Your task to perform on an android device: Go to internet settings Image 0: 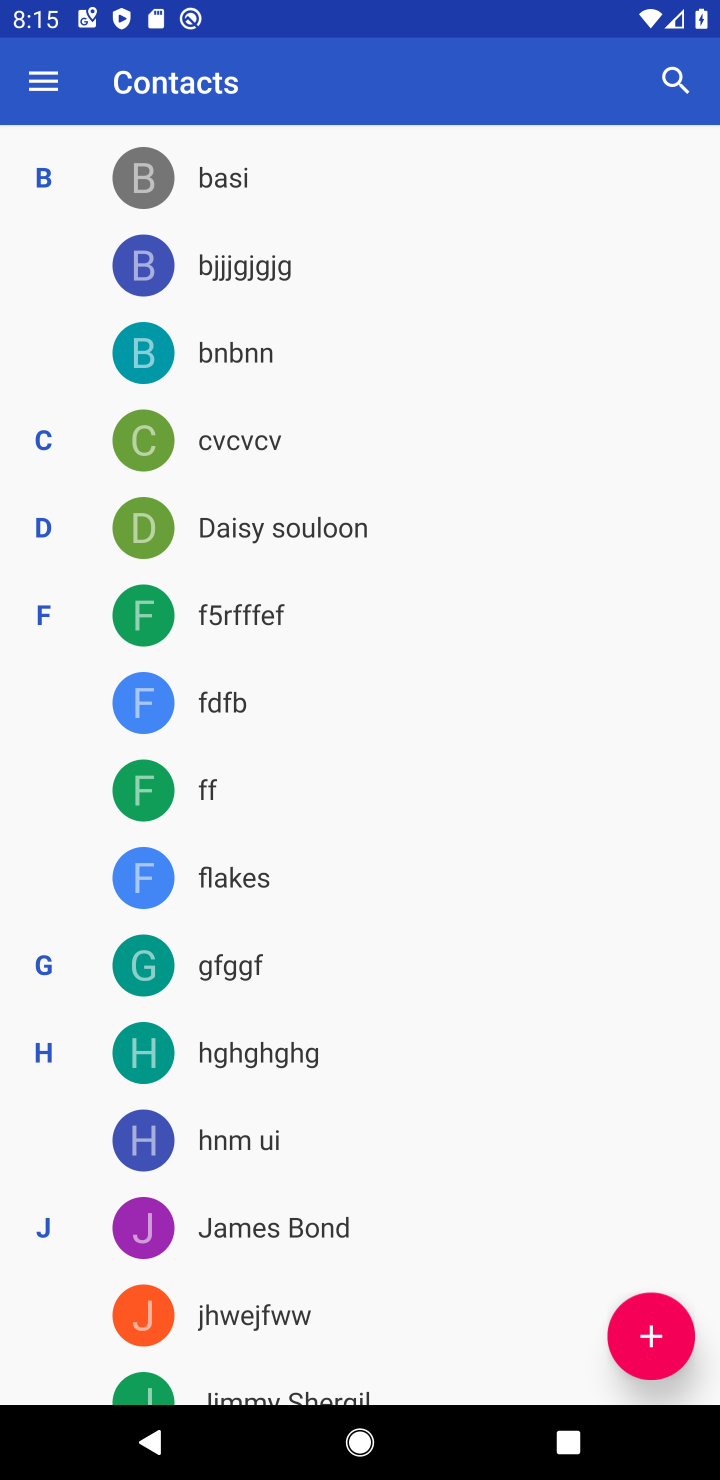
Step 0: press home button
Your task to perform on an android device: Go to internet settings Image 1: 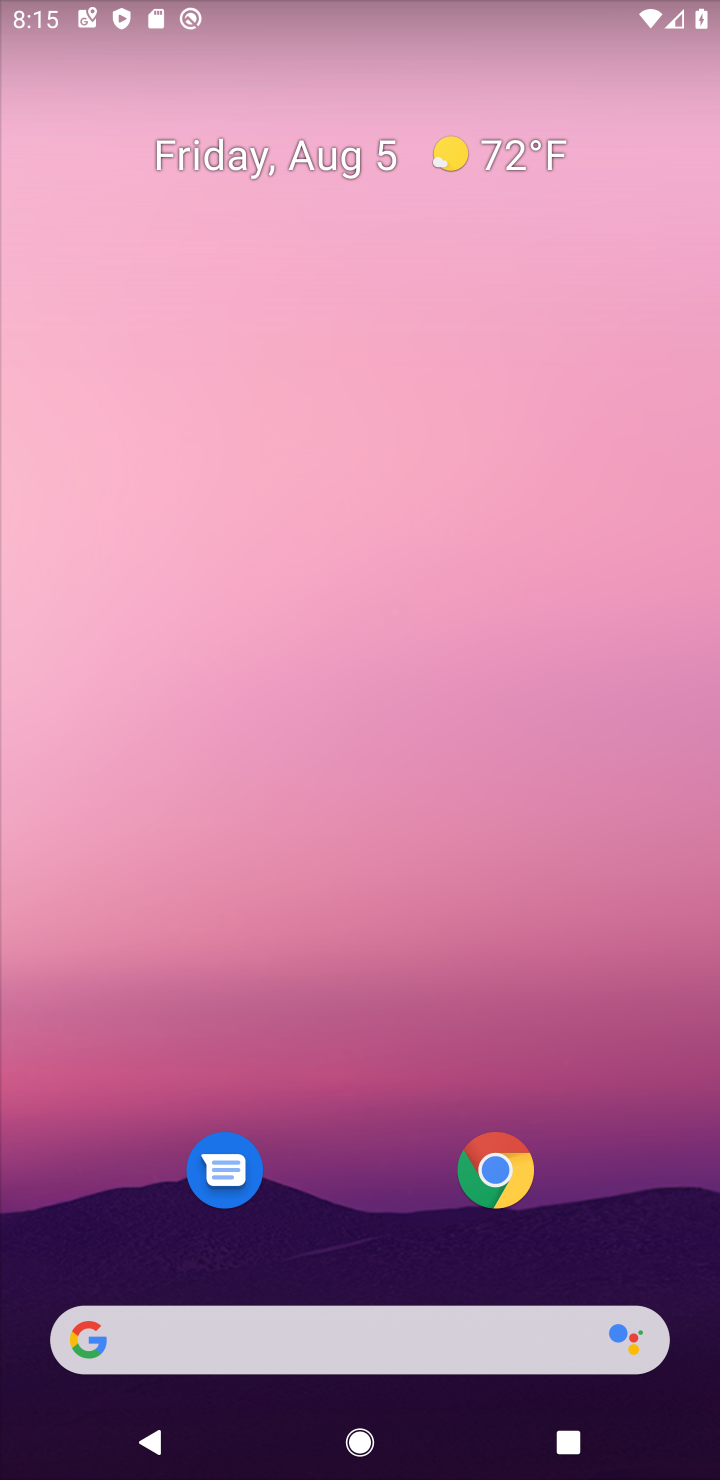
Step 1: drag from (674, 1231) to (645, 707)
Your task to perform on an android device: Go to internet settings Image 2: 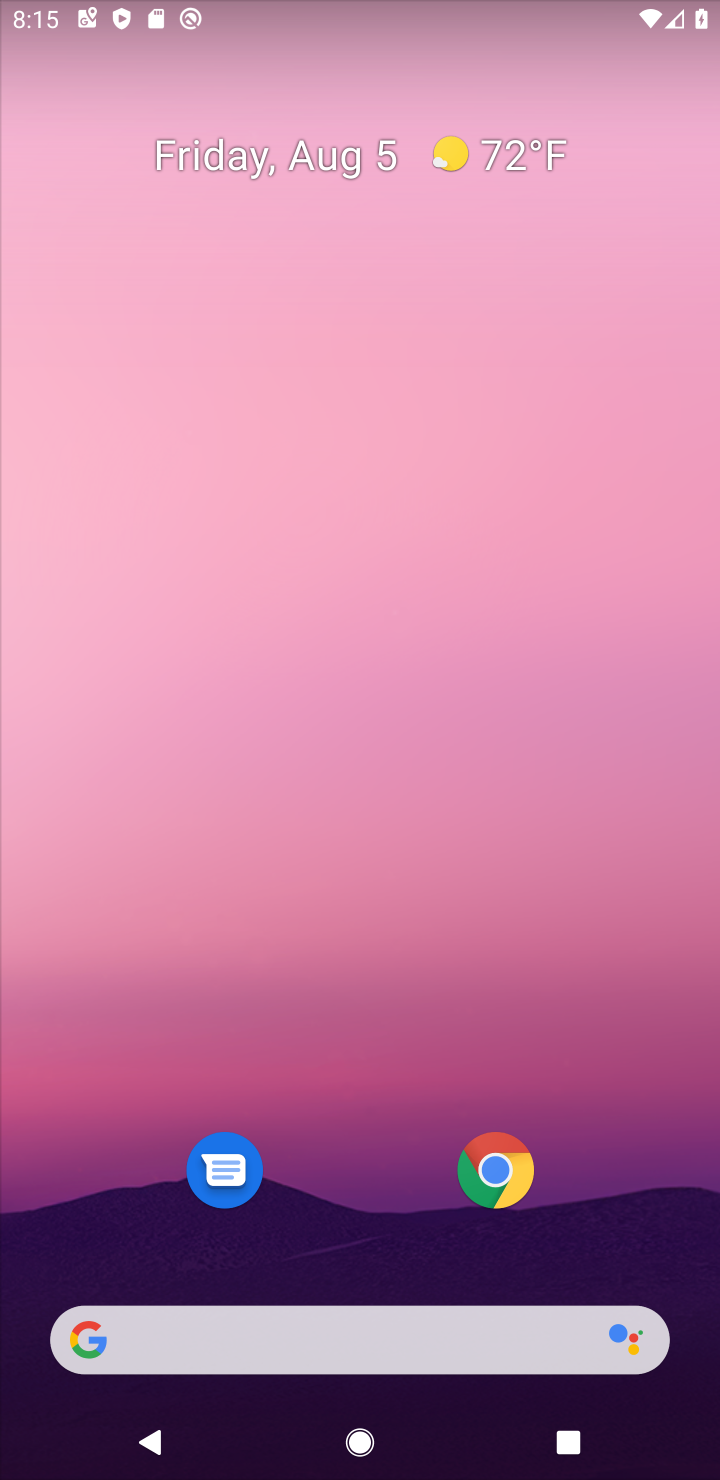
Step 2: drag from (668, 1254) to (605, 123)
Your task to perform on an android device: Go to internet settings Image 3: 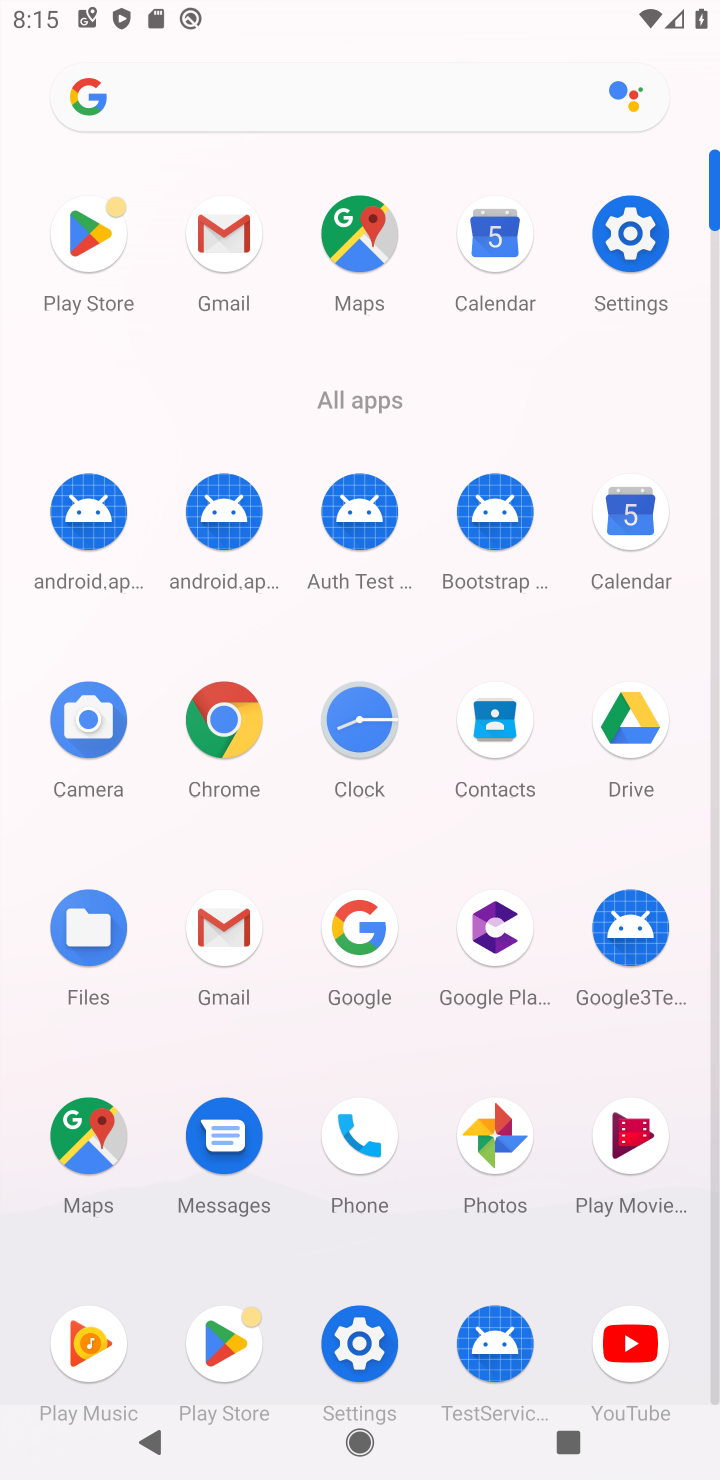
Step 3: click (352, 1339)
Your task to perform on an android device: Go to internet settings Image 4: 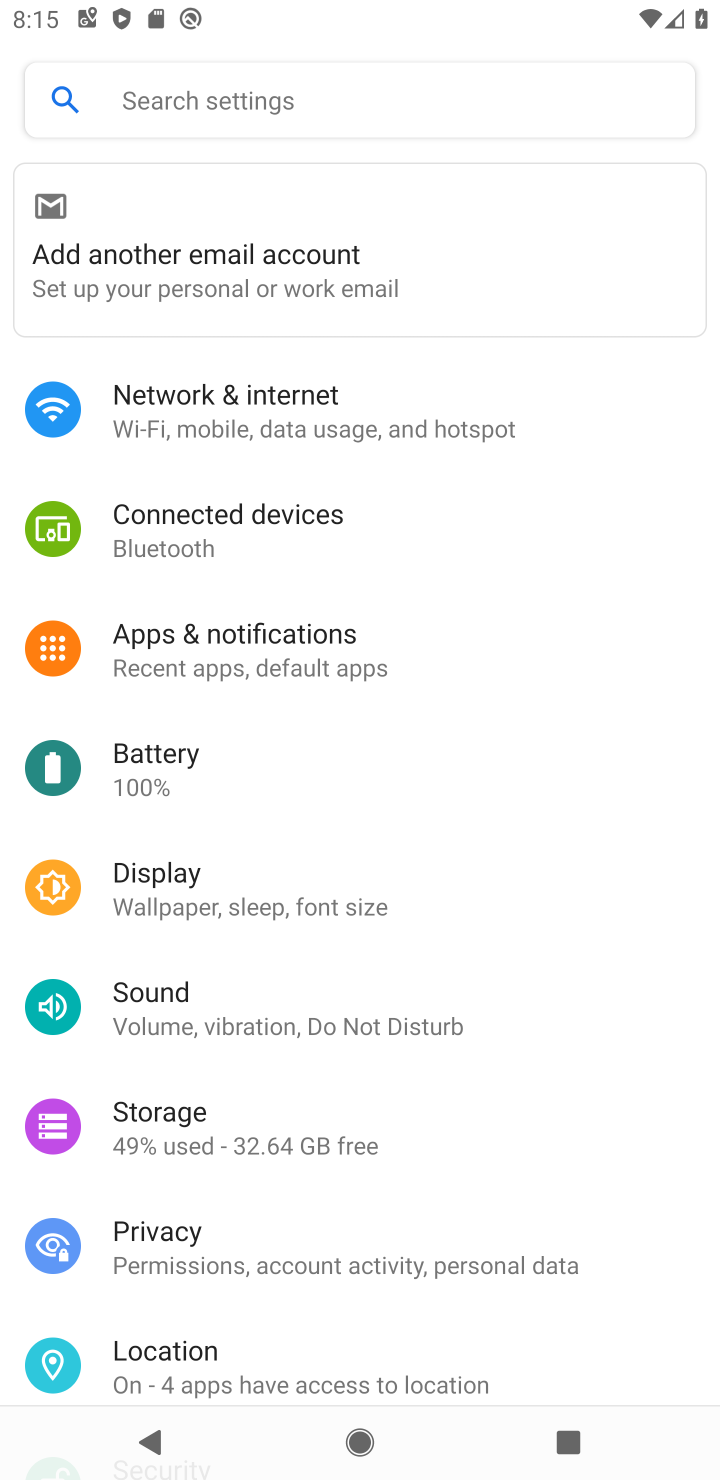
Step 4: click (188, 397)
Your task to perform on an android device: Go to internet settings Image 5: 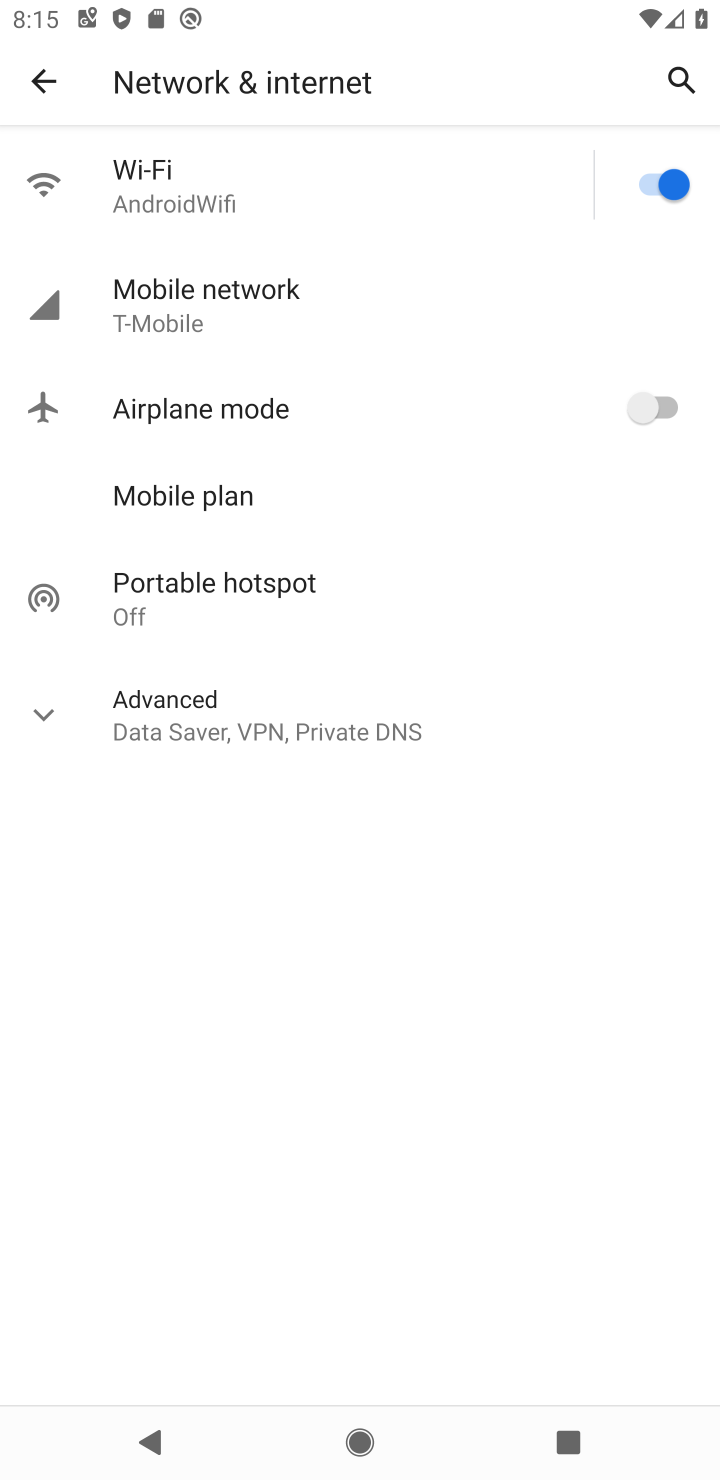
Step 5: click (129, 164)
Your task to perform on an android device: Go to internet settings Image 6: 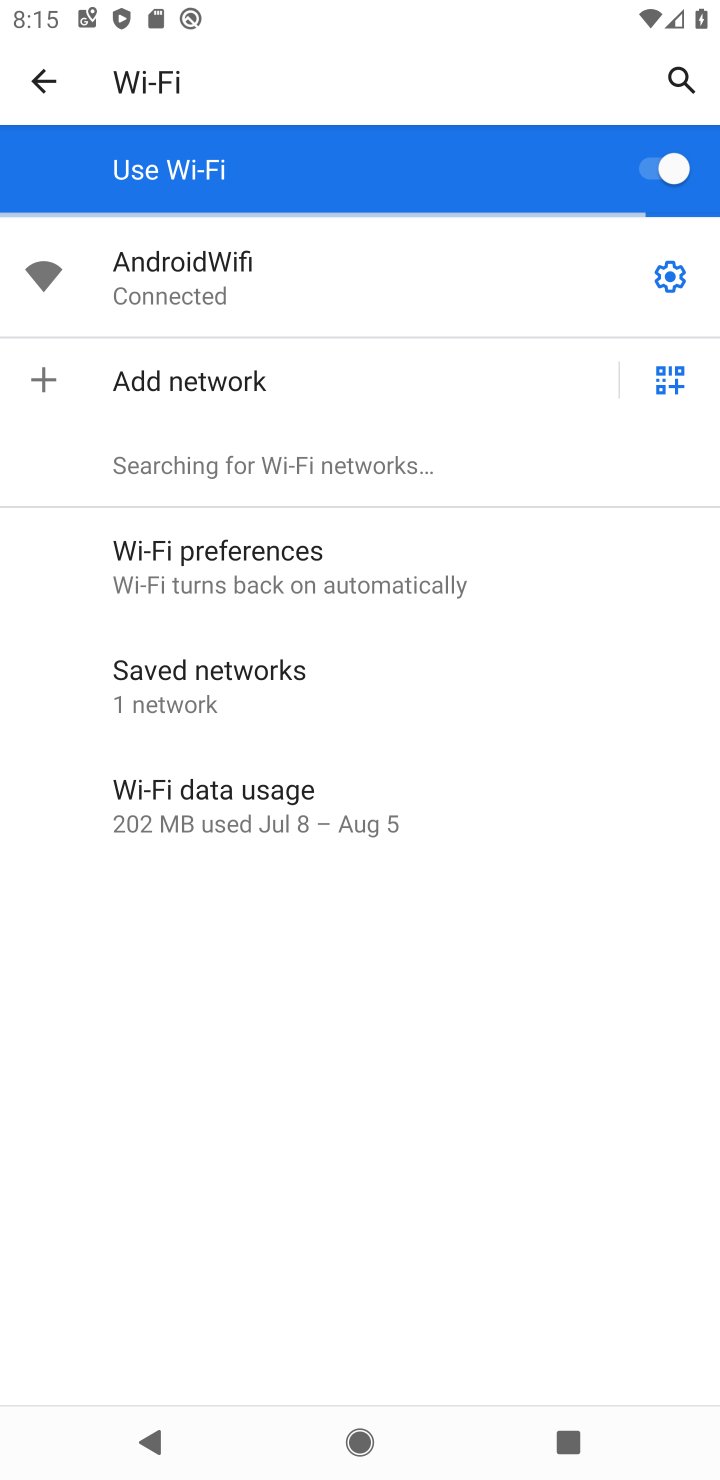
Step 6: task complete